Your task to perform on an android device: Open display settings Image 0: 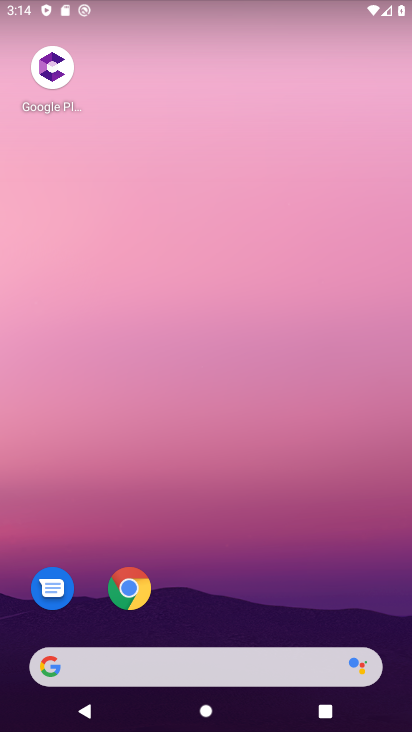
Step 0: drag from (206, 492) to (205, 127)
Your task to perform on an android device: Open display settings Image 1: 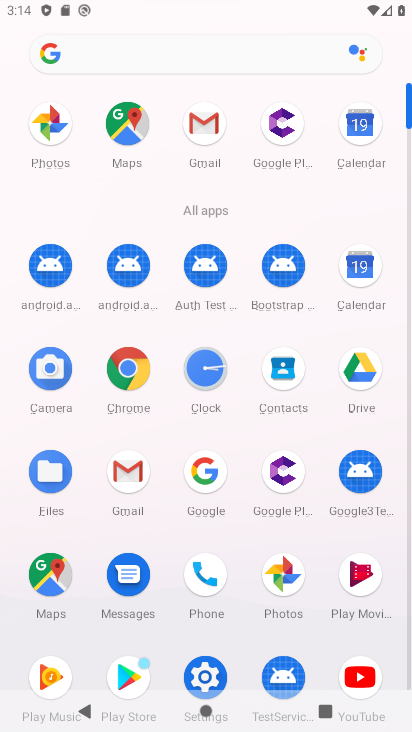
Step 1: click (207, 667)
Your task to perform on an android device: Open display settings Image 2: 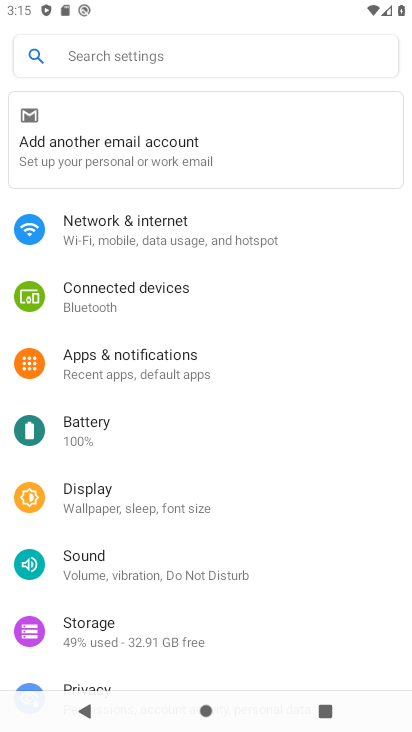
Step 2: click (123, 491)
Your task to perform on an android device: Open display settings Image 3: 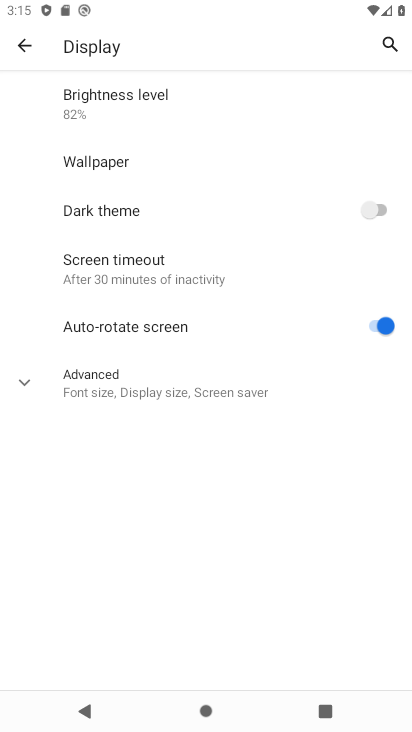
Step 3: task complete